Your task to perform on an android device: Go to network settings Image 0: 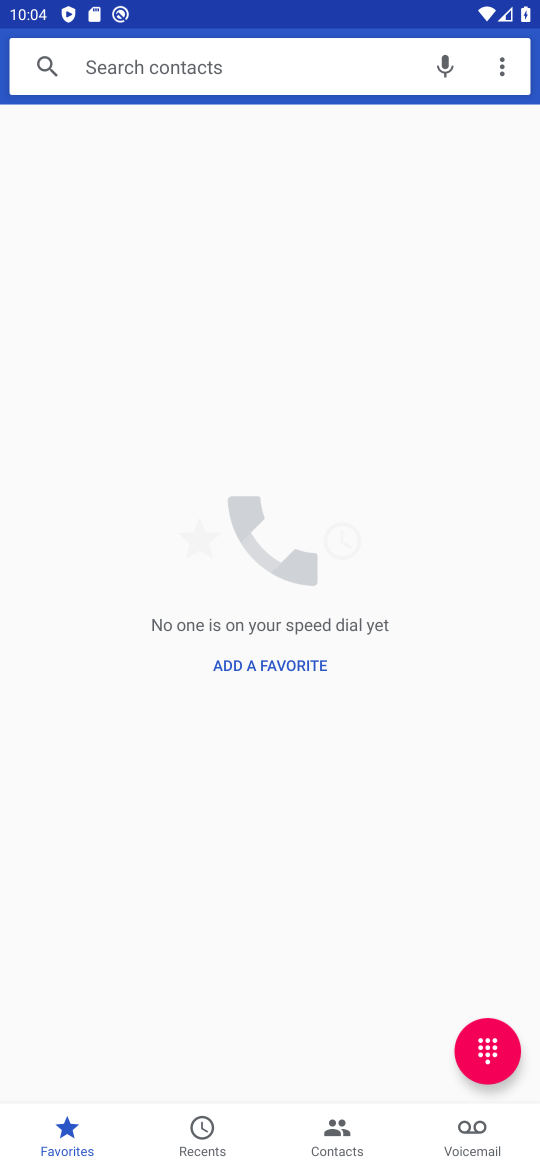
Step 0: press home button
Your task to perform on an android device: Go to network settings Image 1: 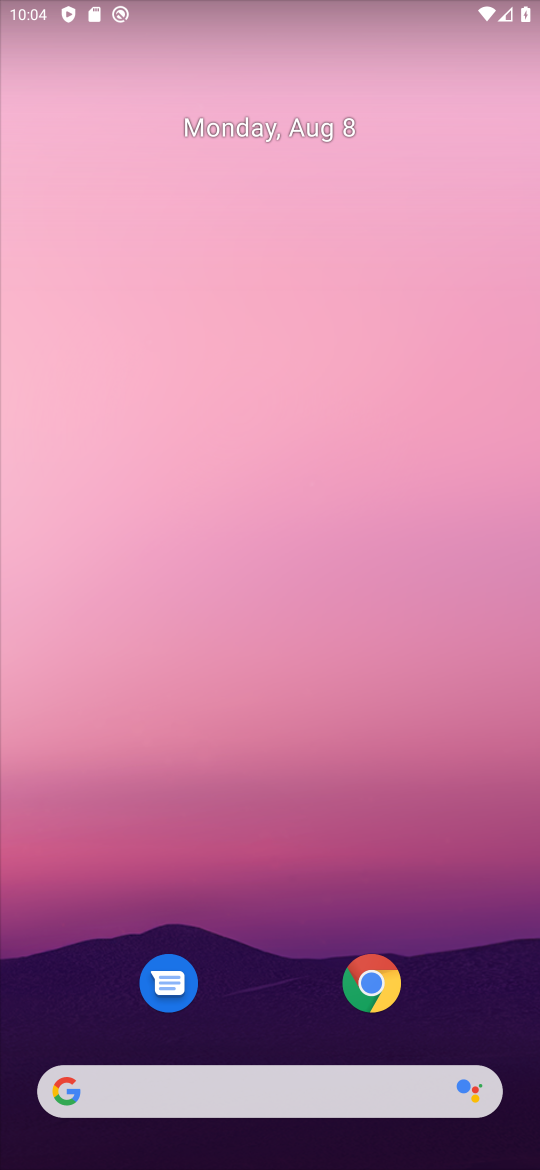
Step 1: drag from (287, 1009) to (323, 96)
Your task to perform on an android device: Go to network settings Image 2: 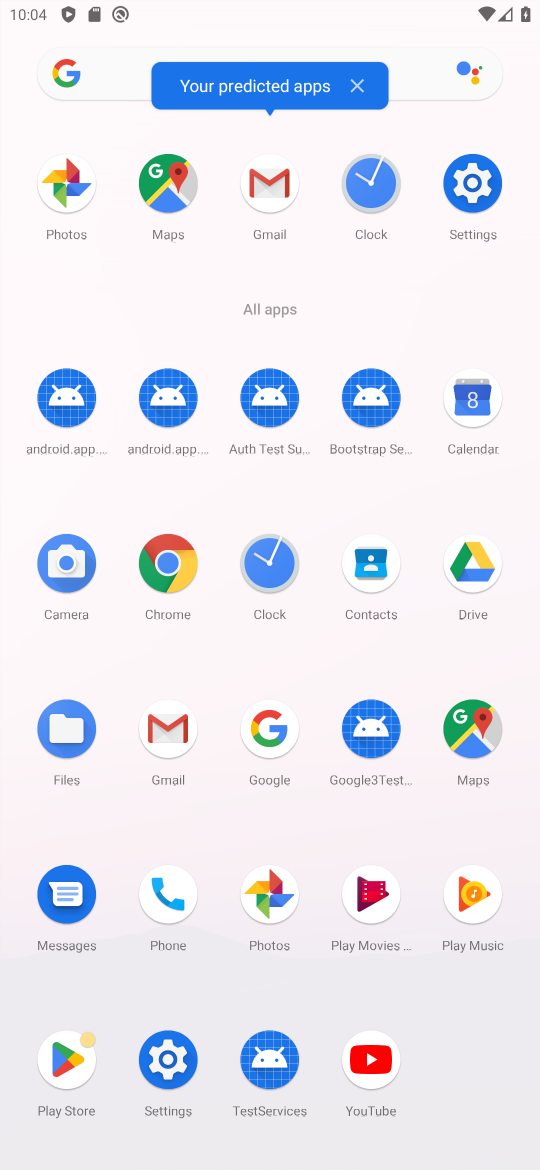
Step 2: click (157, 1110)
Your task to perform on an android device: Go to network settings Image 3: 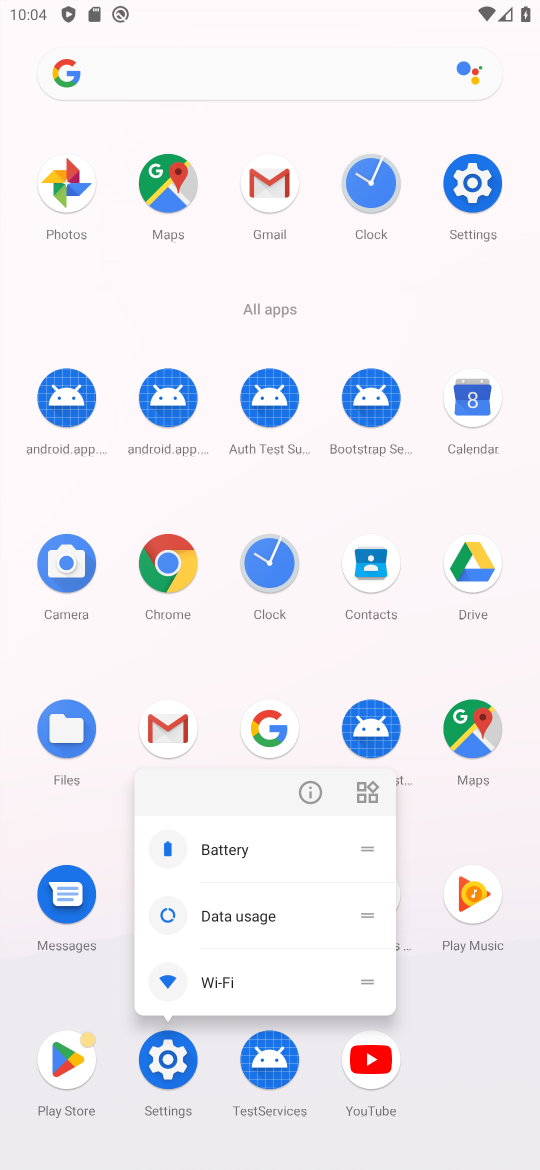
Step 3: click (158, 1102)
Your task to perform on an android device: Go to network settings Image 4: 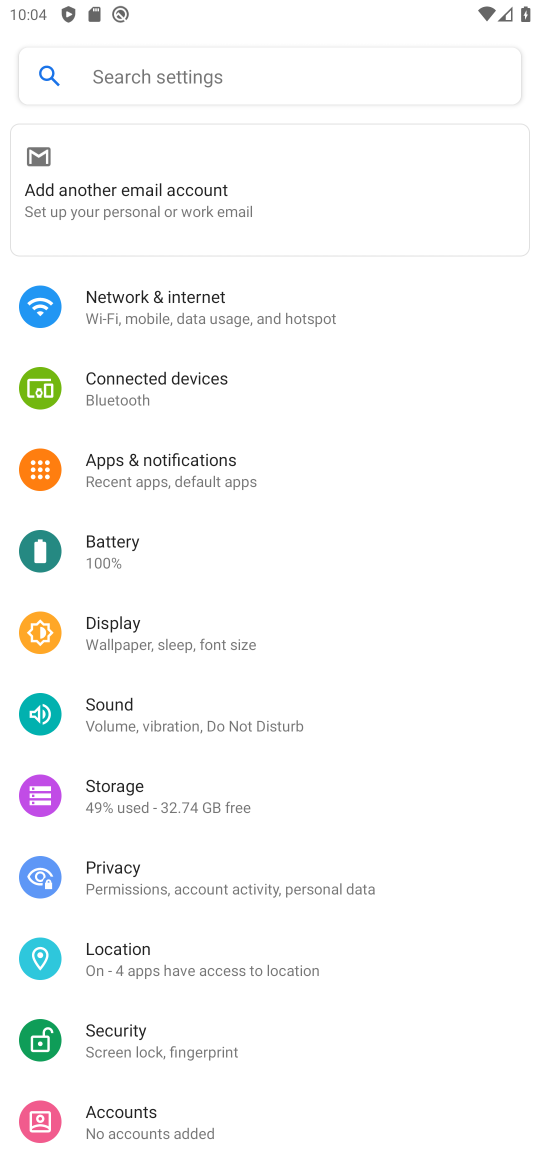
Step 4: click (209, 304)
Your task to perform on an android device: Go to network settings Image 5: 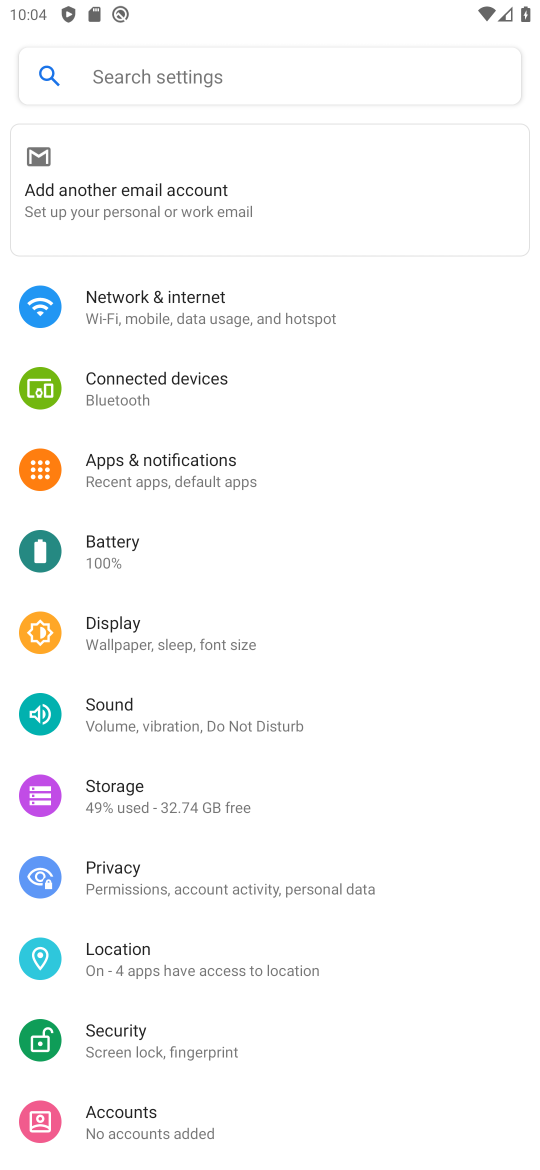
Step 5: task complete